Your task to perform on an android device: check android version Image 0: 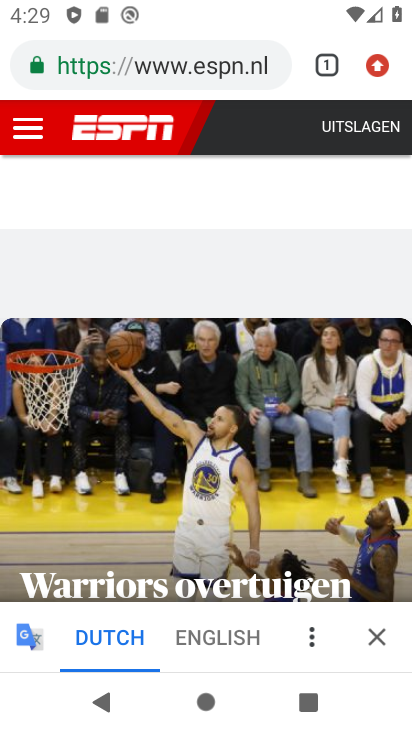
Step 0: press home button
Your task to perform on an android device: check android version Image 1: 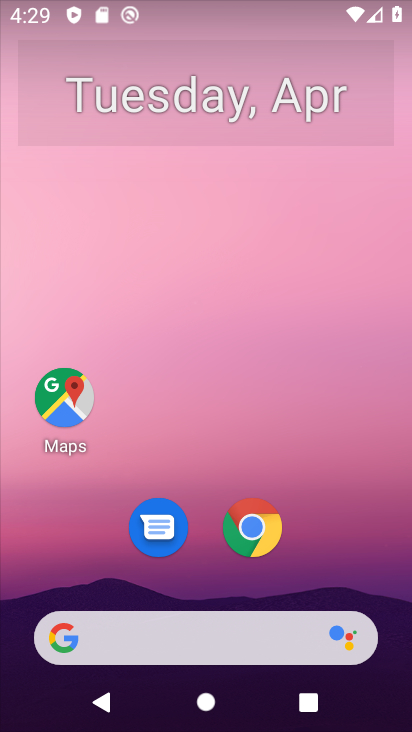
Step 1: drag from (298, 585) to (343, 110)
Your task to perform on an android device: check android version Image 2: 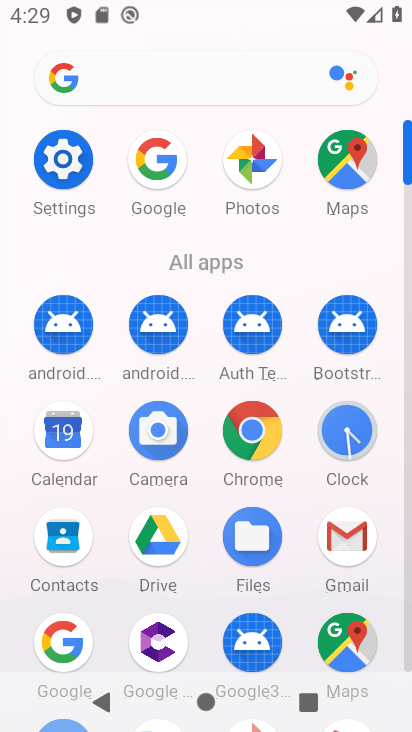
Step 2: click (66, 160)
Your task to perform on an android device: check android version Image 3: 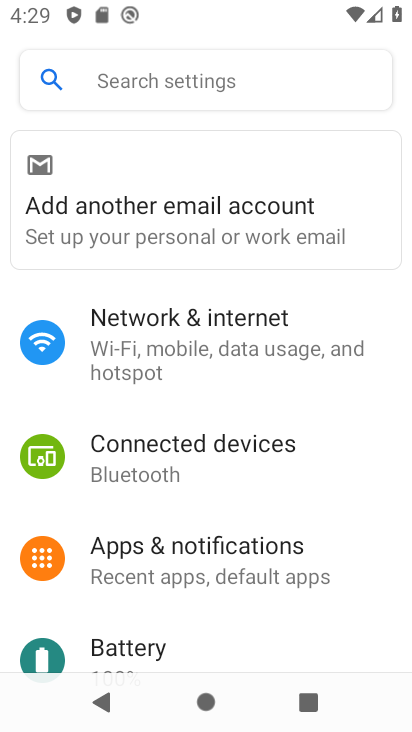
Step 3: drag from (254, 599) to (292, 121)
Your task to perform on an android device: check android version Image 4: 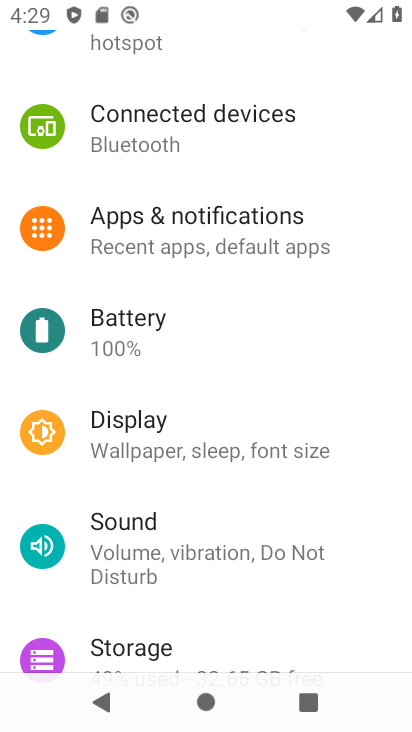
Step 4: drag from (216, 584) to (246, 46)
Your task to perform on an android device: check android version Image 5: 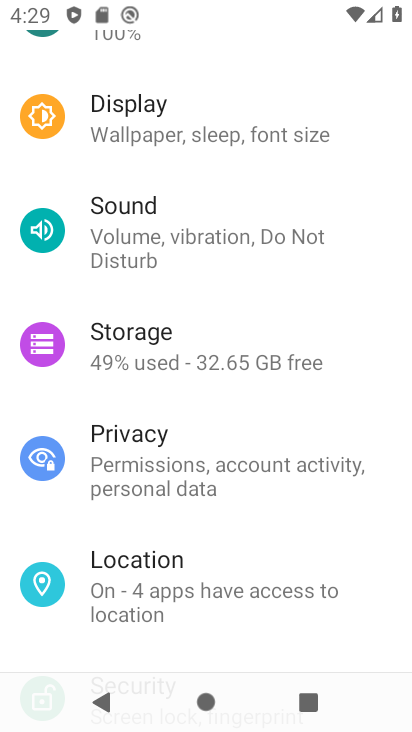
Step 5: drag from (243, 627) to (318, 94)
Your task to perform on an android device: check android version Image 6: 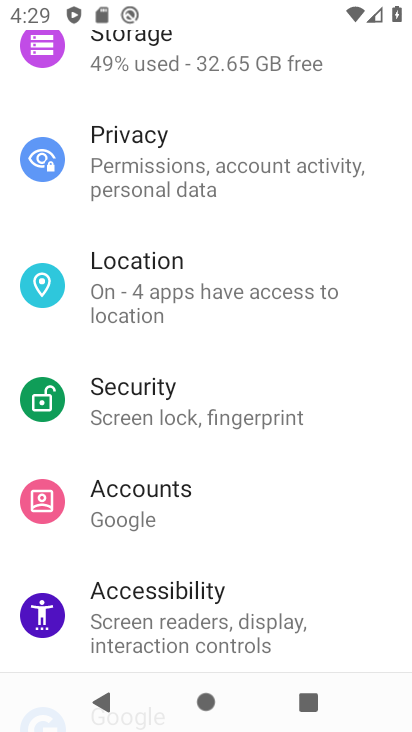
Step 6: drag from (296, 567) to (323, 140)
Your task to perform on an android device: check android version Image 7: 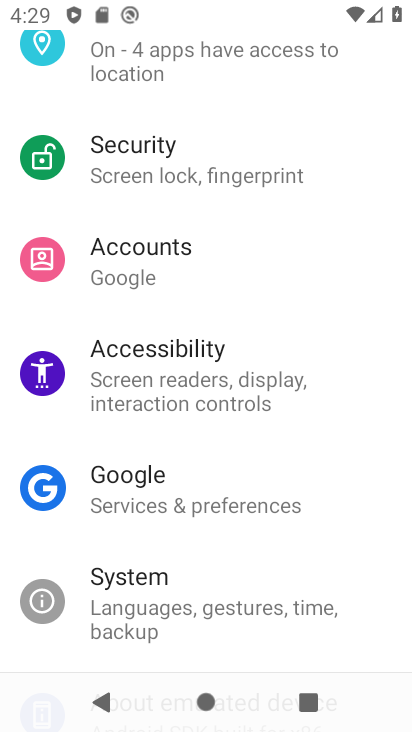
Step 7: drag from (274, 528) to (291, 147)
Your task to perform on an android device: check android version Image 8: 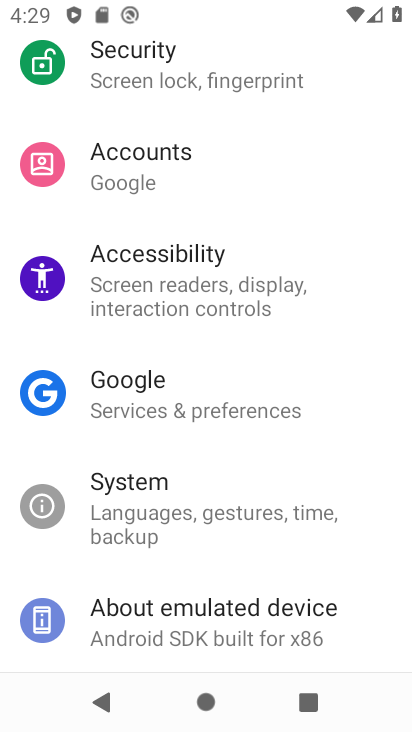
Step 8: click (260, 615)
Your task to perform on an android device: check android version Image 9: 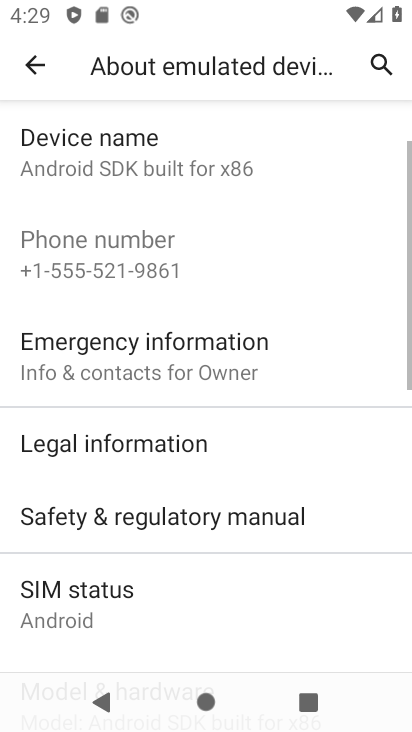
Step 9: task complete